Your task to perform on an android device: see creations saved in the google photos Image 0: 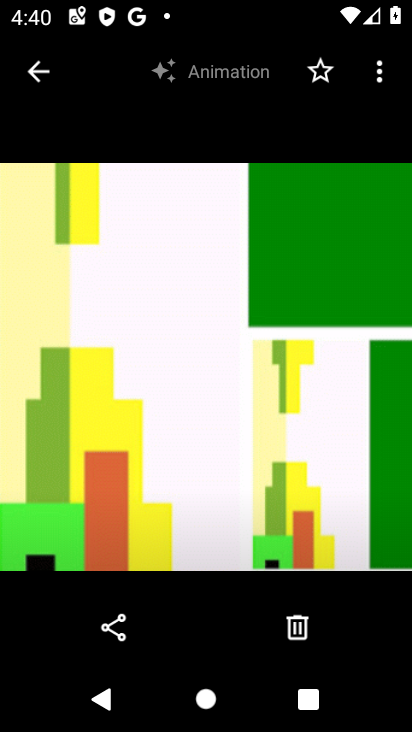
Step 0: press home button
Your task to perform on an android device: see creations saved in the google photos Image 1: 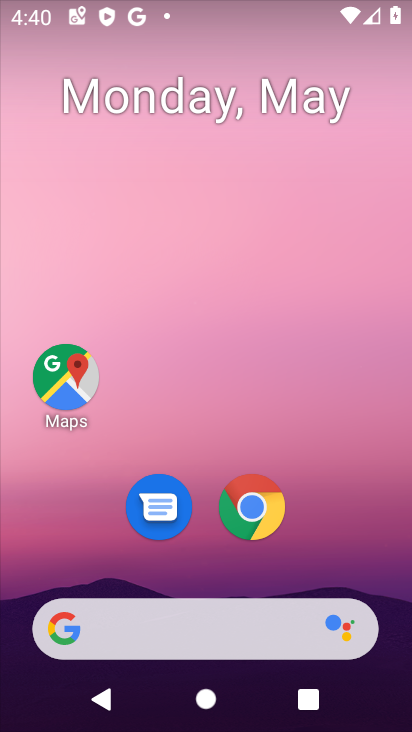
Step 1: drag from (357, 419) to (406, 9)
Your task to perform on an android device: see creations saved in the google photos Image 2: 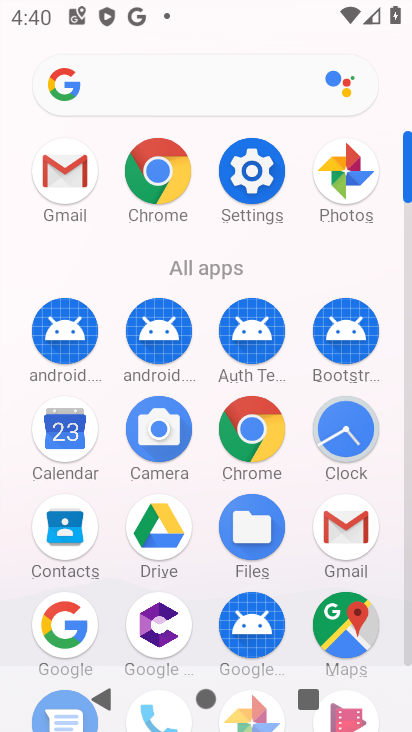
Step 2: click (350, 210)
Your task to perform on an android device: see creations saved in the google photos Image 3: 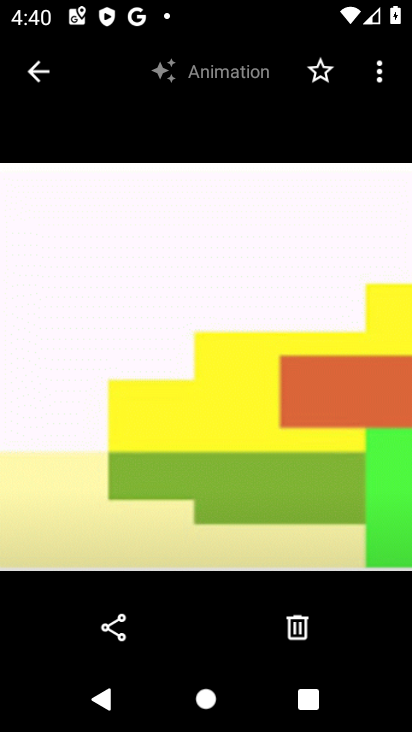
Step 3: click (39, 78)
Your task to perform on an android device: see creations saved in the google photos Image 4: 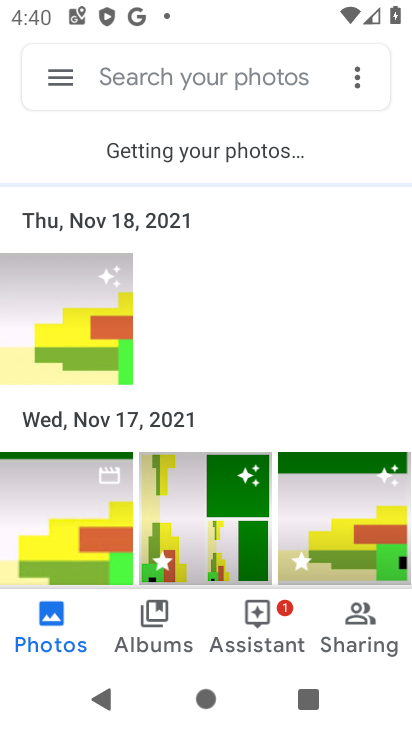
Step 4: click (168, 634)
Your task to perform on an android device: see creations saved in the google photos Image 5: 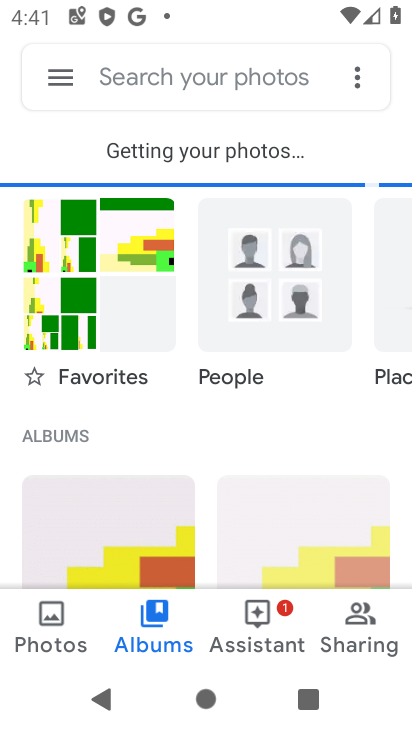
Step 5: task complete